Your task to perform on an android device: turn on the 12-hour format for clock Image 0: 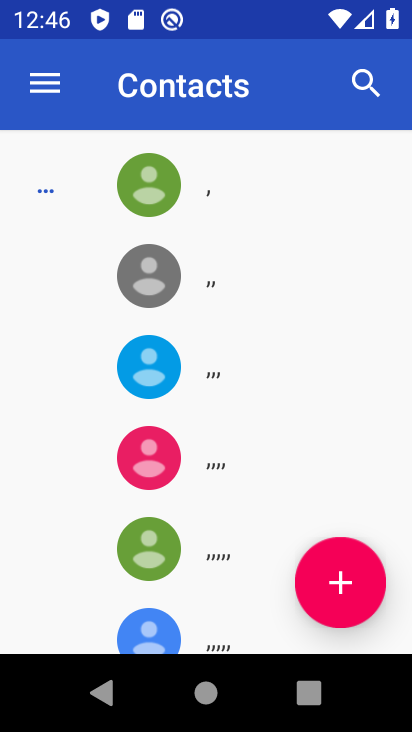
Step 0: press home button
Your task to perform on an android device: turn on the 12-hour format for clock Image 1: 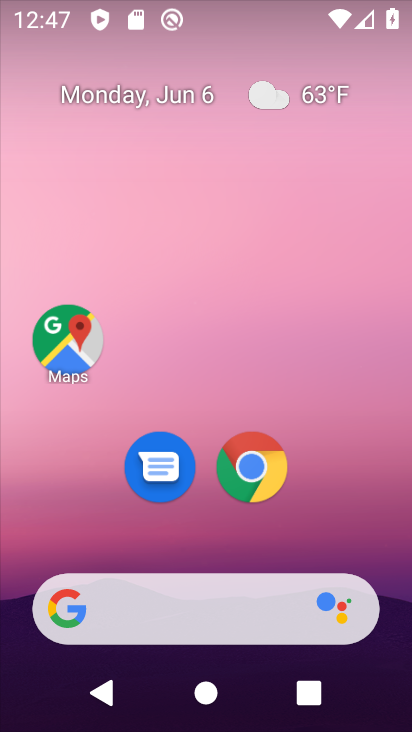
Step 1: click (389, 628)
Your task to perform on an android device: turn on the 12-hour format for clock Image 2: 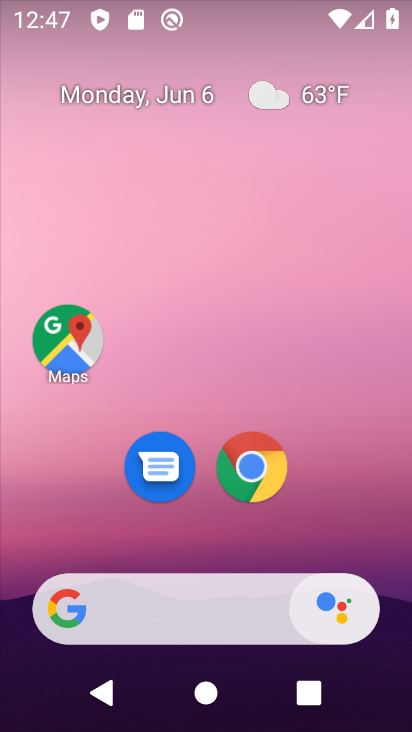
Step 2: drag from (320, 198) to (252, 9)
Your task to perform on an android device: turn on the 12-hour format for clock Image 3: 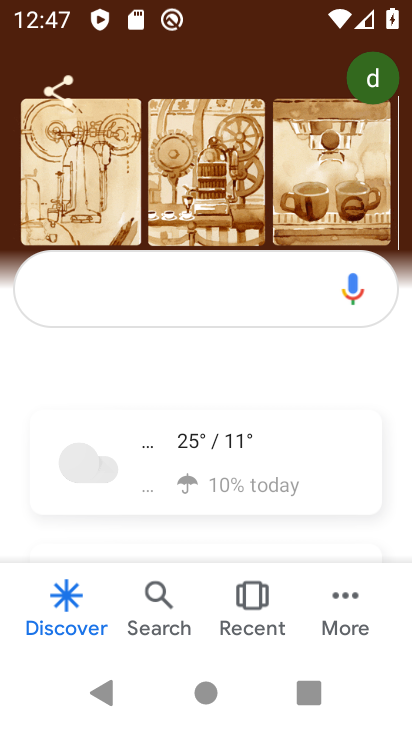
Step 3: press home button
Your task to perform on an android device: turn on the 12-hour format for clock Image 4: 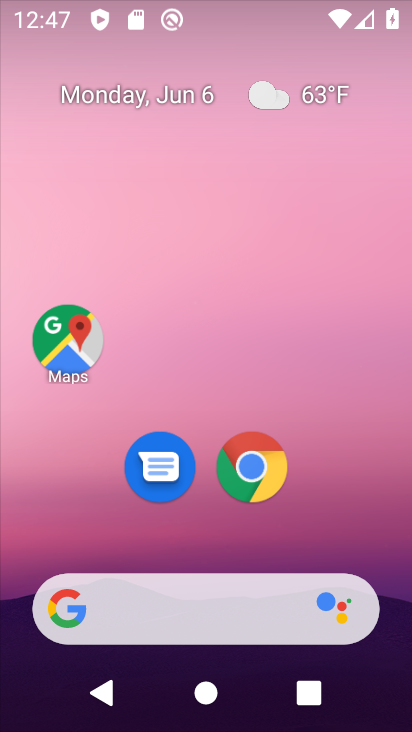
Step 4: drag from (388, 642) to (313, 42)
Your task to perform on an android device: turn on the 12-hour format for clock Image 5: 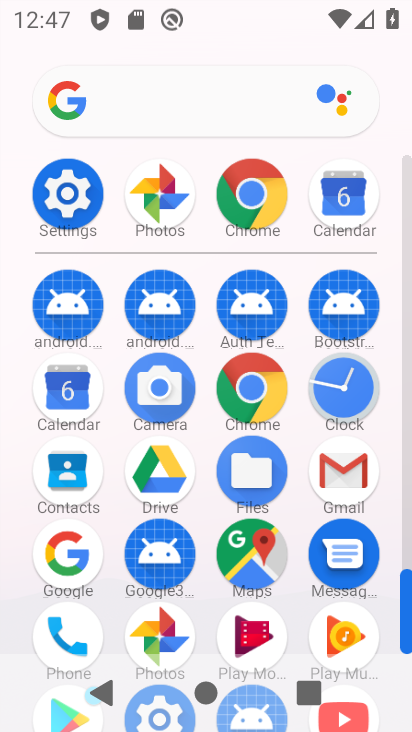
Step 5: click (329, 405)
Your task to perform on an android device: turn on the 12-hour format for clock Image 6: 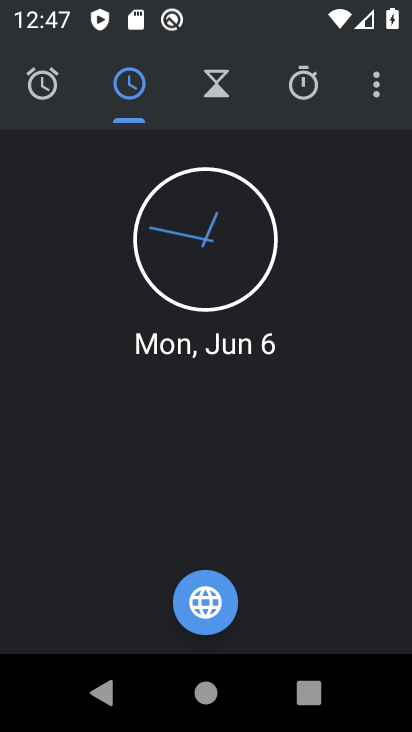
Step 6: click (373, 83)
Your task to perform on an android device: turn on the 12-hour format for clock Image 7: 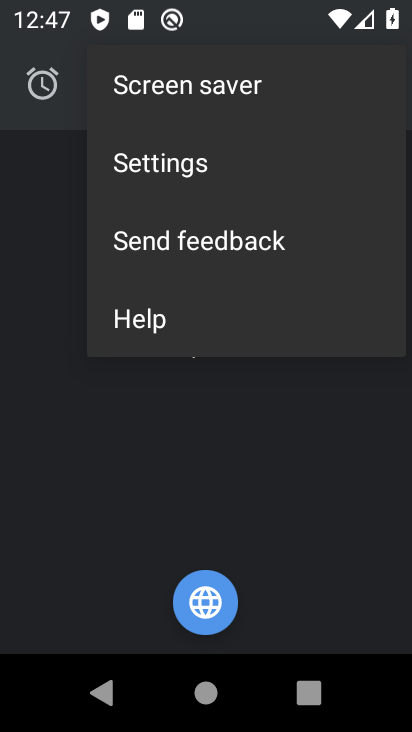
Step 7: click (148, 153)
Your task to perform on an android device: turn on the 12-hour format for clock Image 8: 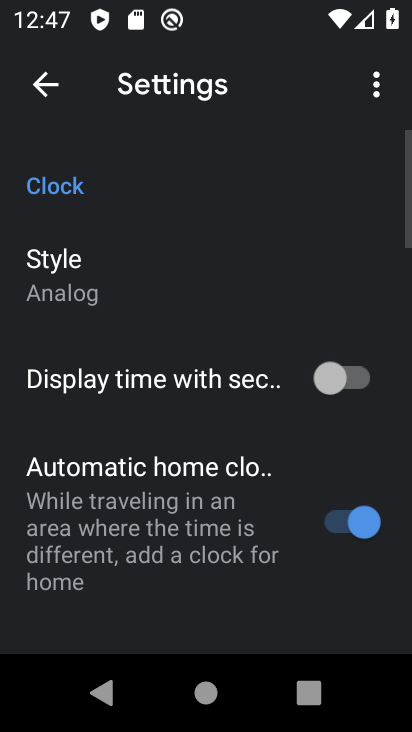
Step 8: drag from (192, 550) to (212, 135)
Your task to perform on an android device: turn on the 12-hour format for clock Image 9: 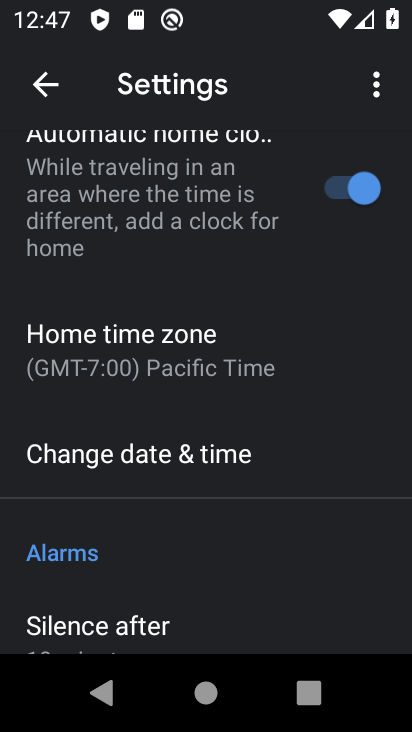
Step 9: click (167, 465)
Your task to perform on an android device: turn on the 12-hour format for clock Image 10: 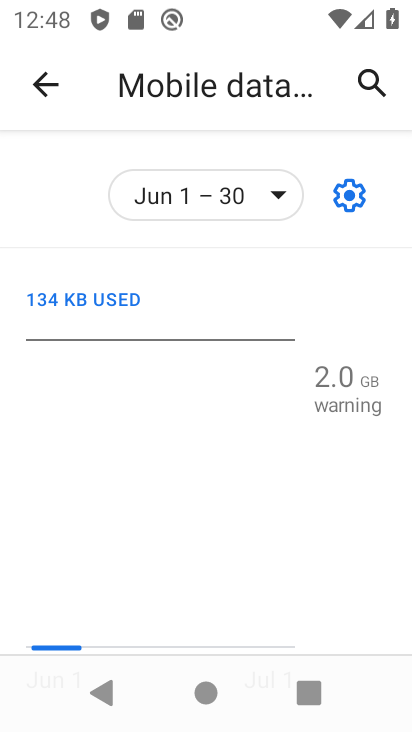
Step 10: task complete